Your task to perform on an android device: Search for "amazon basics triple a" on newegg.com, select the first entry, add it to the cart, then select checkout. Image 0: 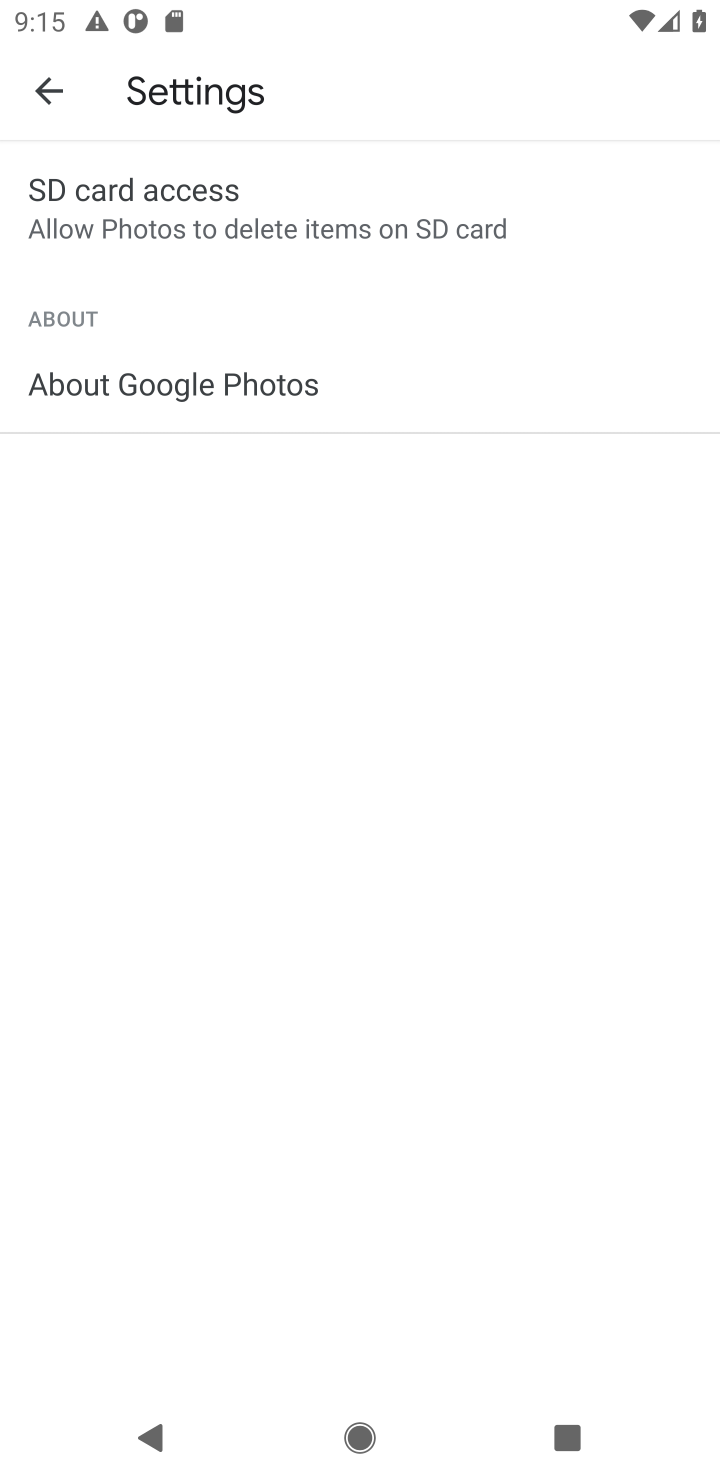
Step 0: press home button
Your task to perform on an android device: Search for "amazon basics triple a" on newegg.com, select the first entry, add it to the cart, then select checkout. Image 1: 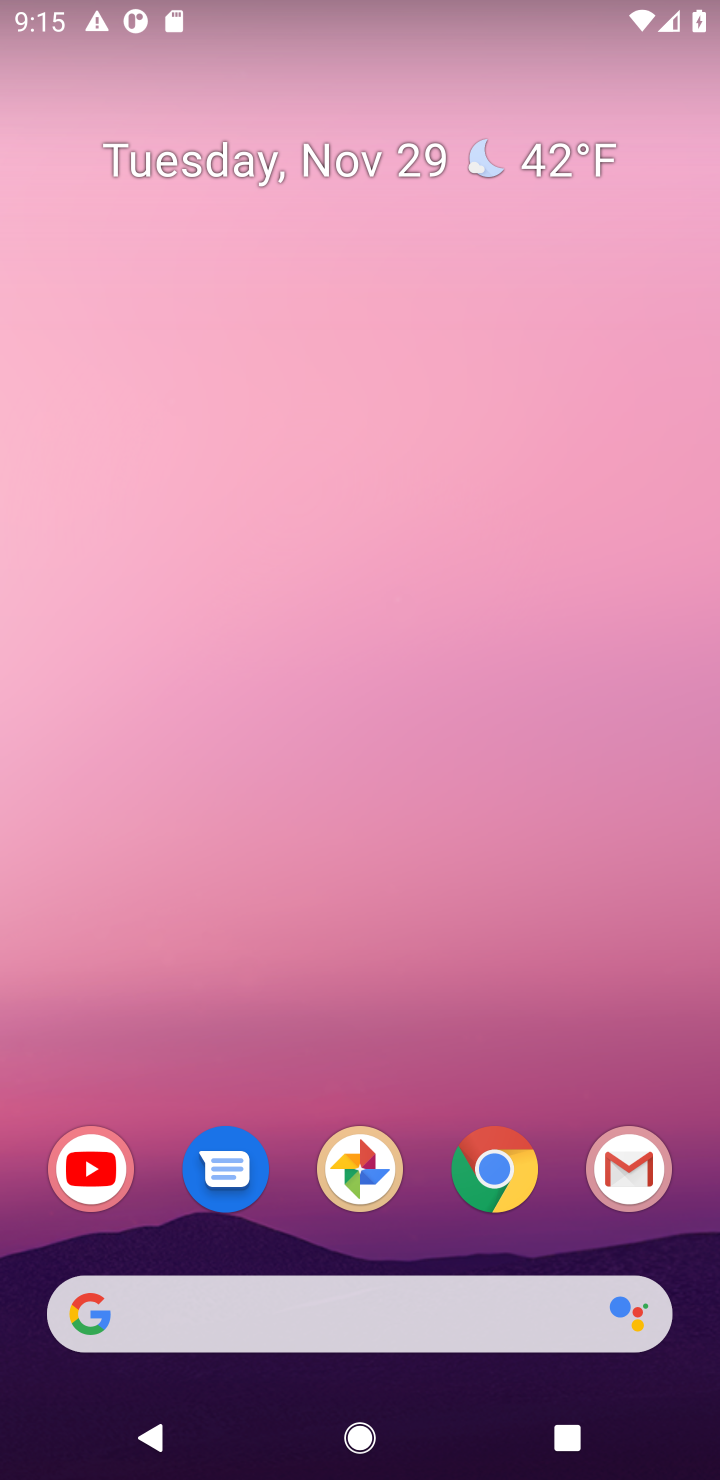
Step 1: click (467, 1339)
Your task to perform on an android device: Search for "amazon basics triple a" on newegg.com, select the first entry, add it to the cart, then select checkout. Image 2: 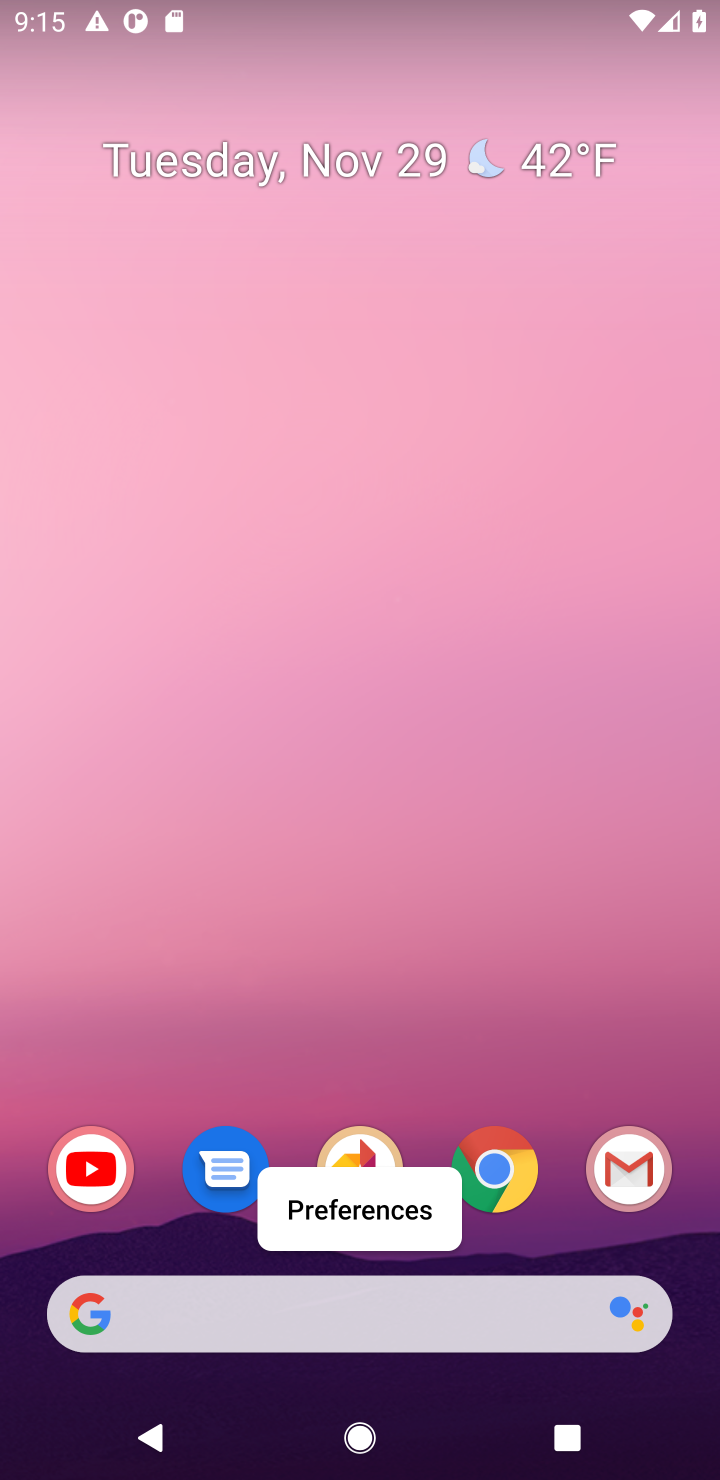
Step 2: type "amazon"
Your task to perform on an android device: Search for "amazon basics triple a" on newegg.com, select the first entry, add it to the cart, then select checkout. Image 3: 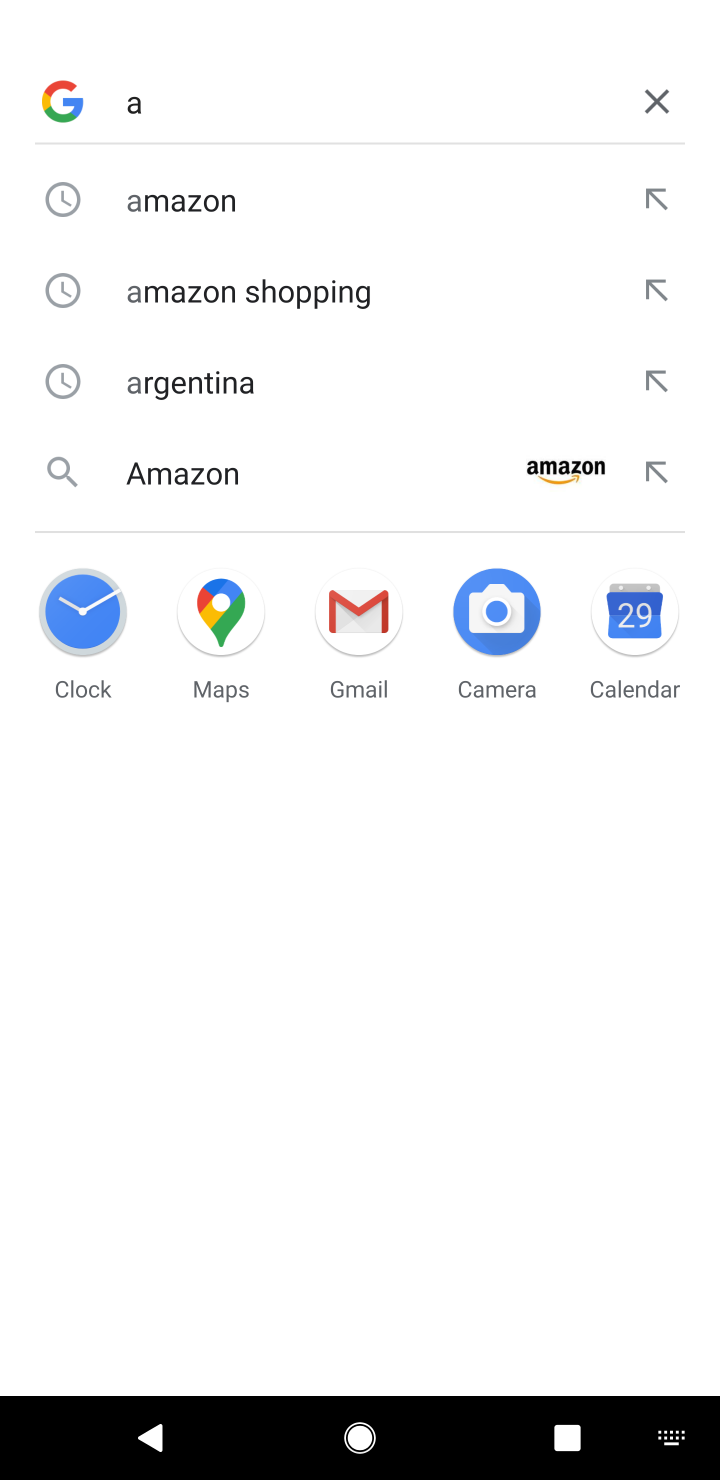
Step 3: click (664, 112)
Your task to perform on an android device: Search for "amazon basics triple a" on newegg.com, select the first entry, add it to the cart, then select checkout. Image 4: 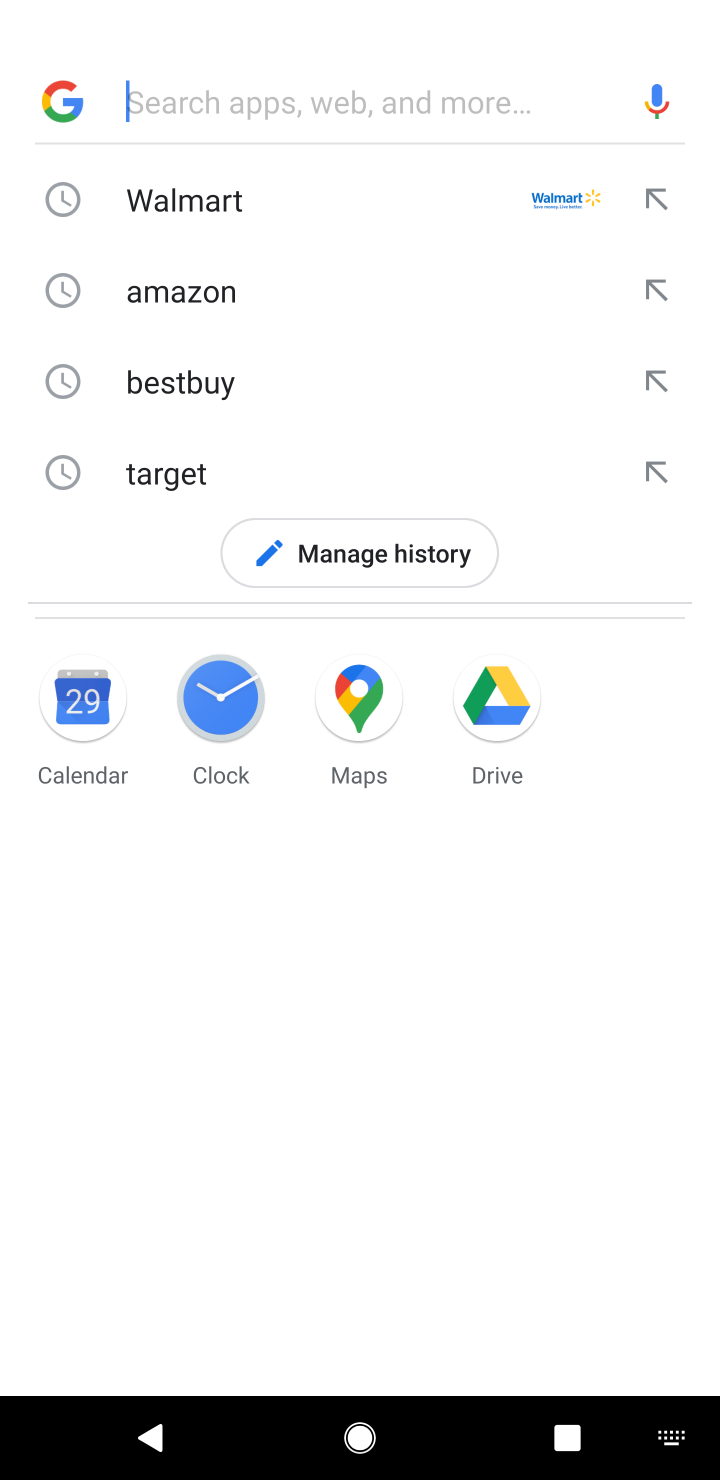
Step 4: type "newegg"
Your task to perform on an android device: Search for "amazon basics triple a" on newegg.com, select the first entry, add it to the cart, then select checkout. Image 5: 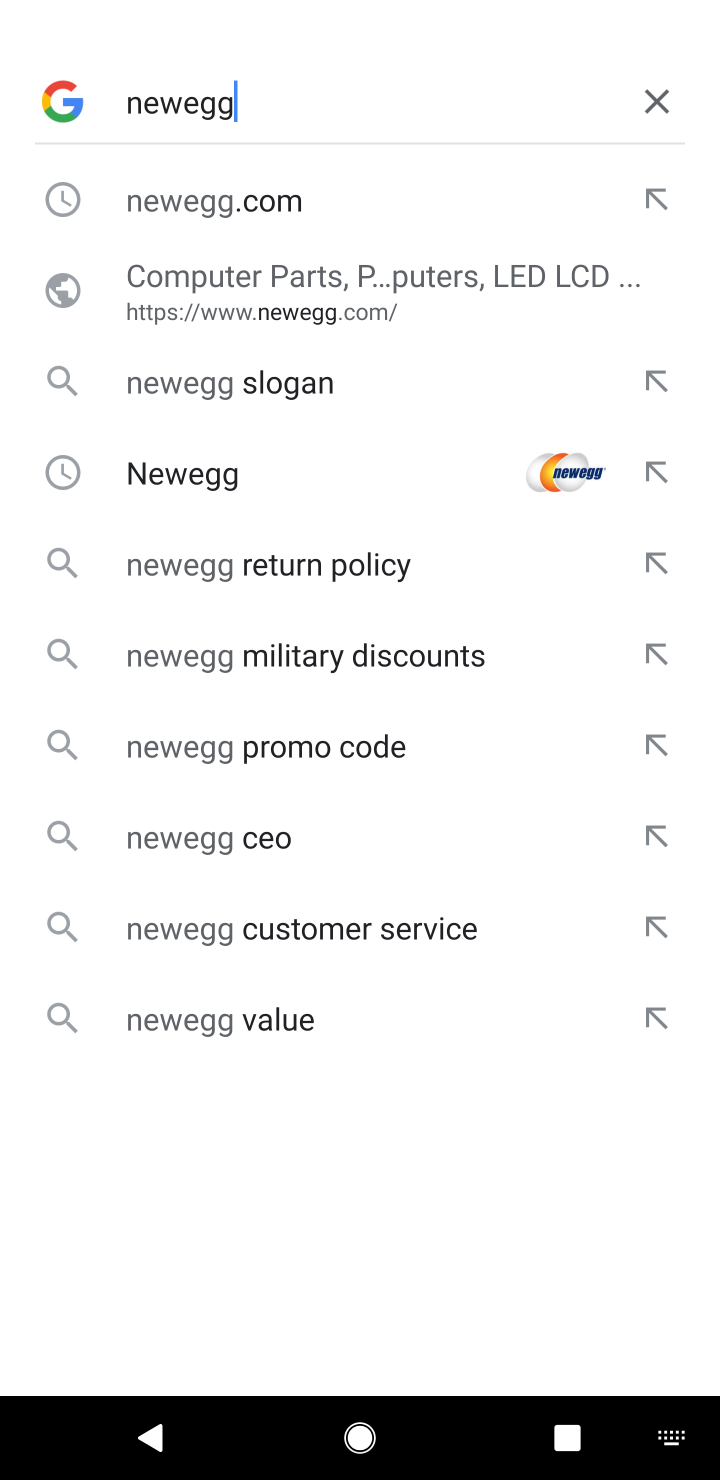
Step 5: click (248, 195)
Your task to perform on an android device: Search for "amazon basics triple a" on newegg.com, select the first entry, add it to the cart, then select checkout. Image 6: 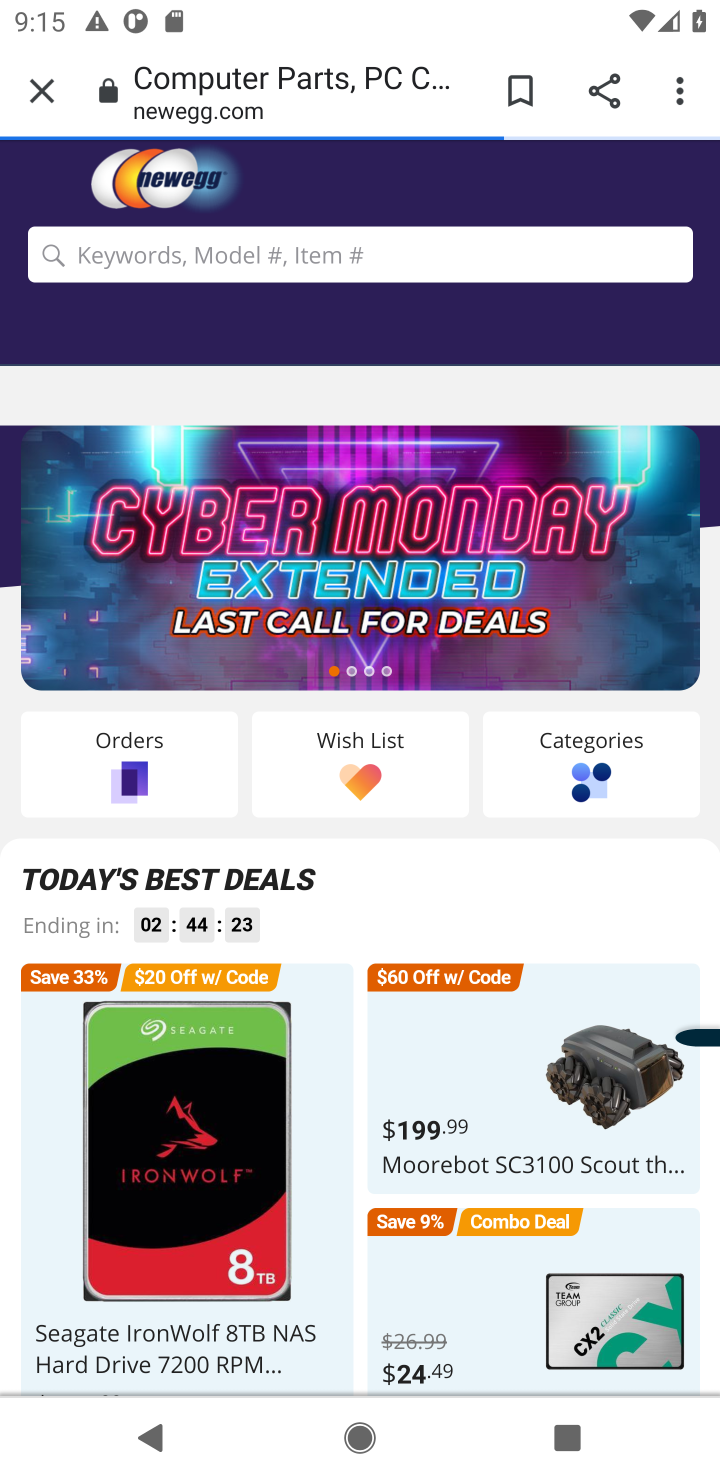
Step 6: click (204, 268)
Your task to perform on an android device: Search for "amazon basics triple a" on newegg.com, select the first entry, add it to the cart, then select checkout. Image 7: 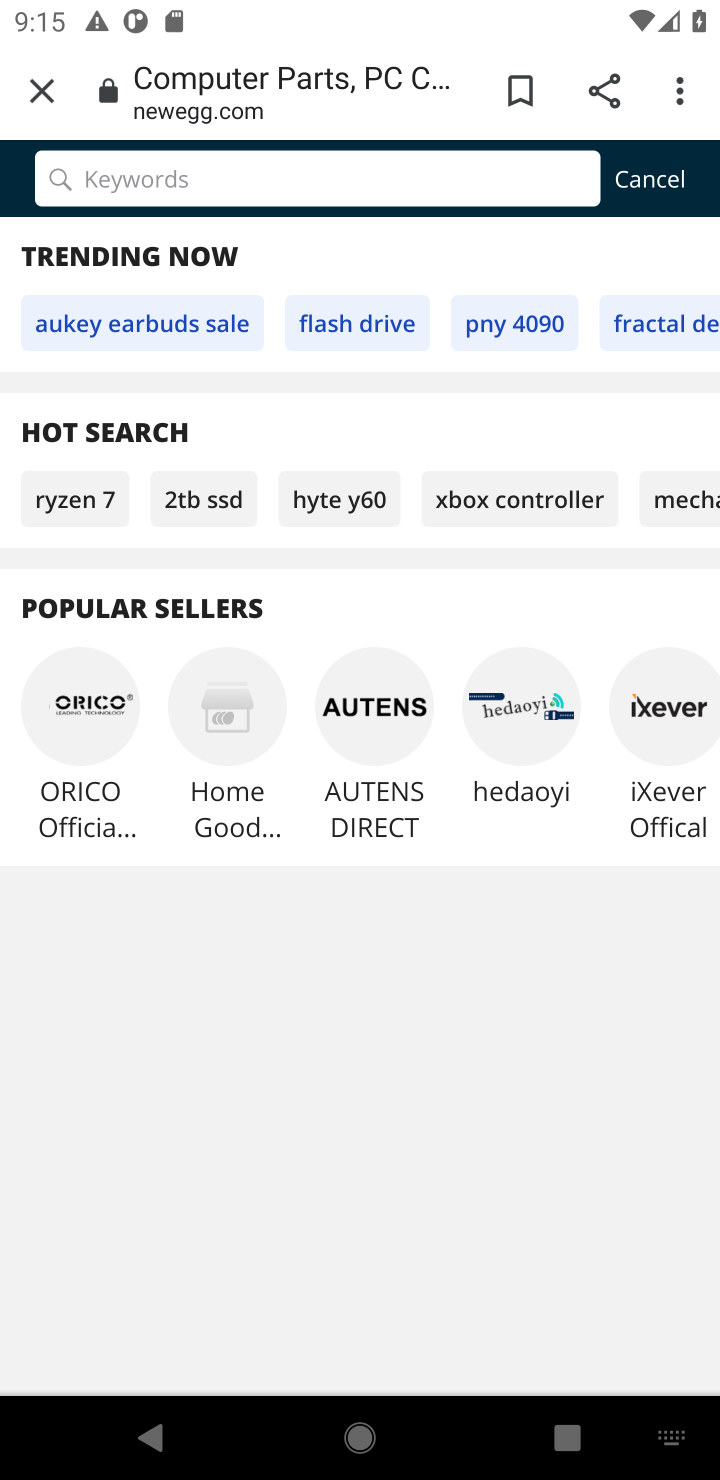
Step 7: type "amazon basic"
Your task to perform on an android device: Search for "amazon basics triple a" on newegg.com, select the first entry, add it to the cart, then select checkout. Image 8: 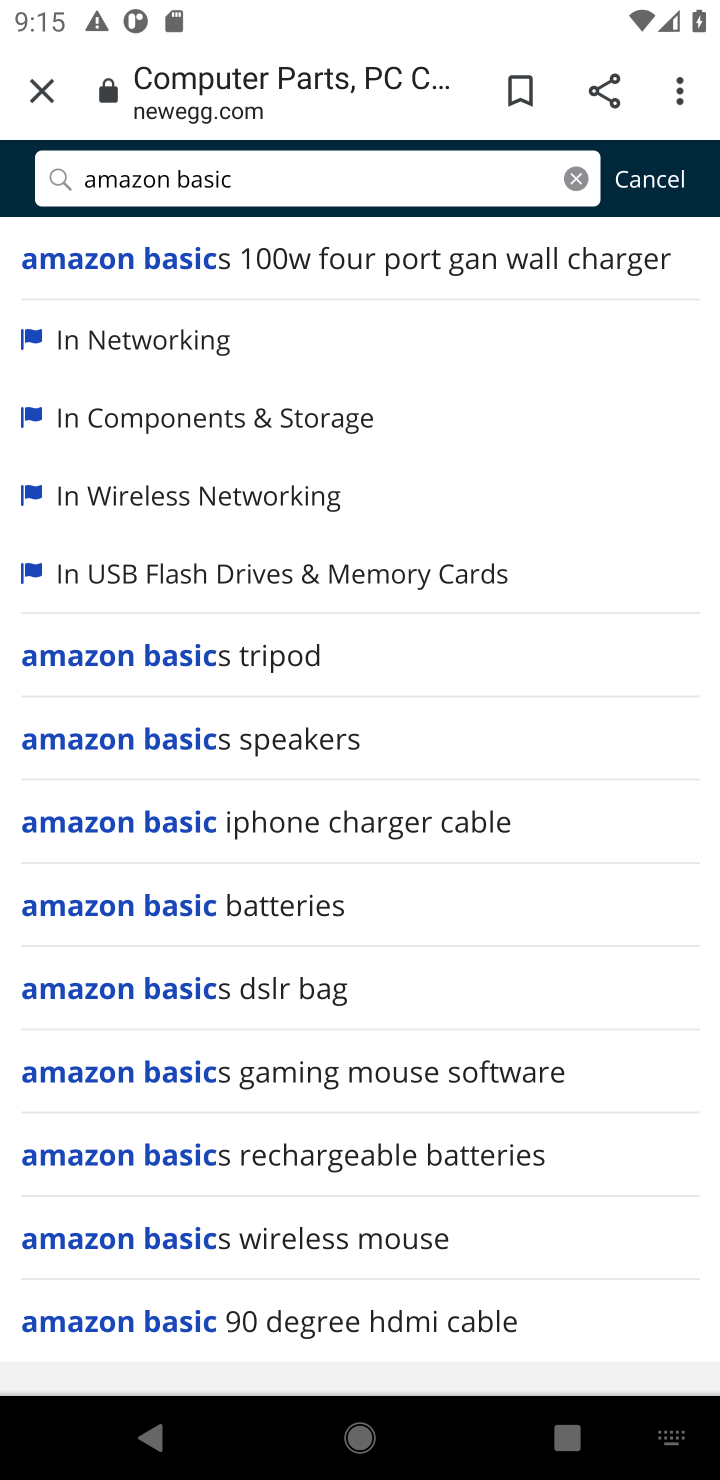
Step 8: click (324, 900)
Your task to perform on an android device: Search for "amazon basics triple a" on newegg.com, select the first entry, add it to the cart, then select checkout. Image 9: 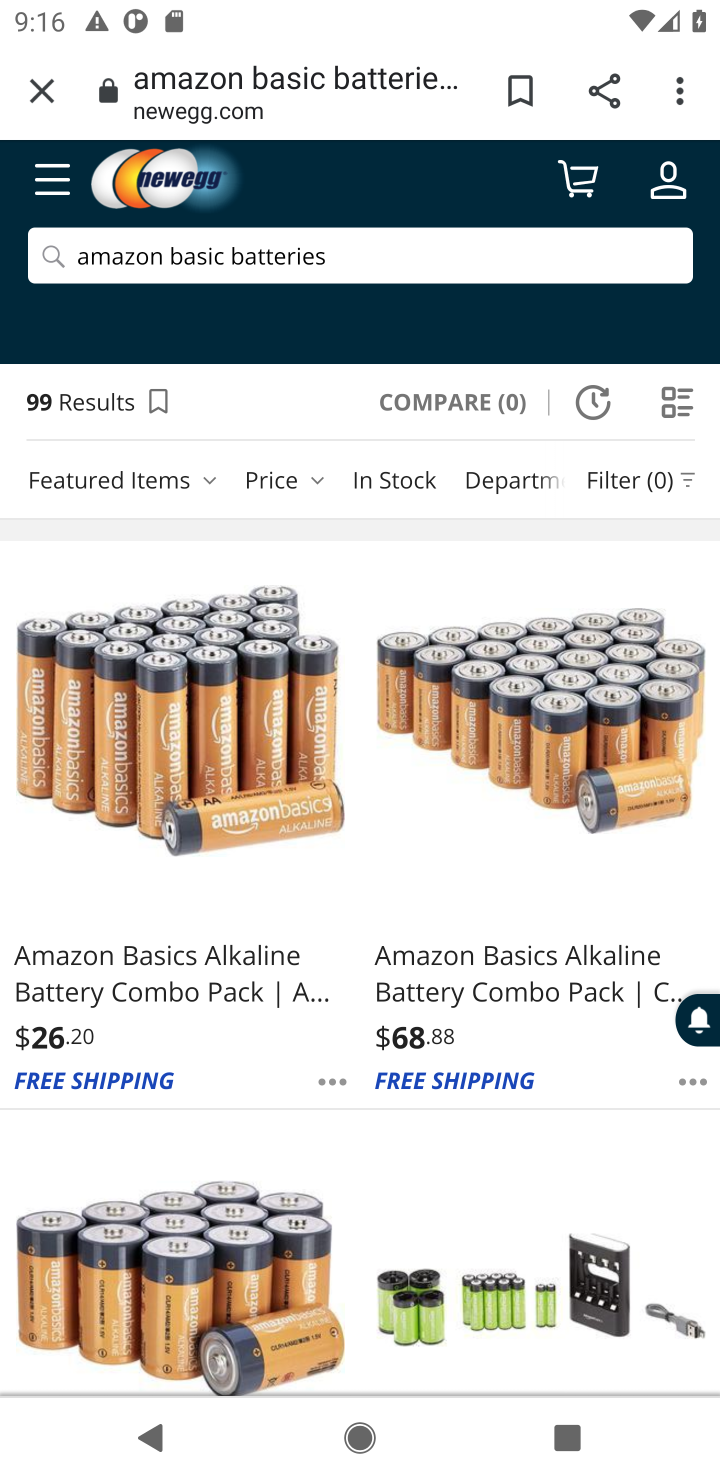
Step 9: click (243, 831)
Your task to perform on an android device: Search for "amazon basics triple a" on newegg.com, select the first entry, add it to the cart, then select checkout. Image 10: 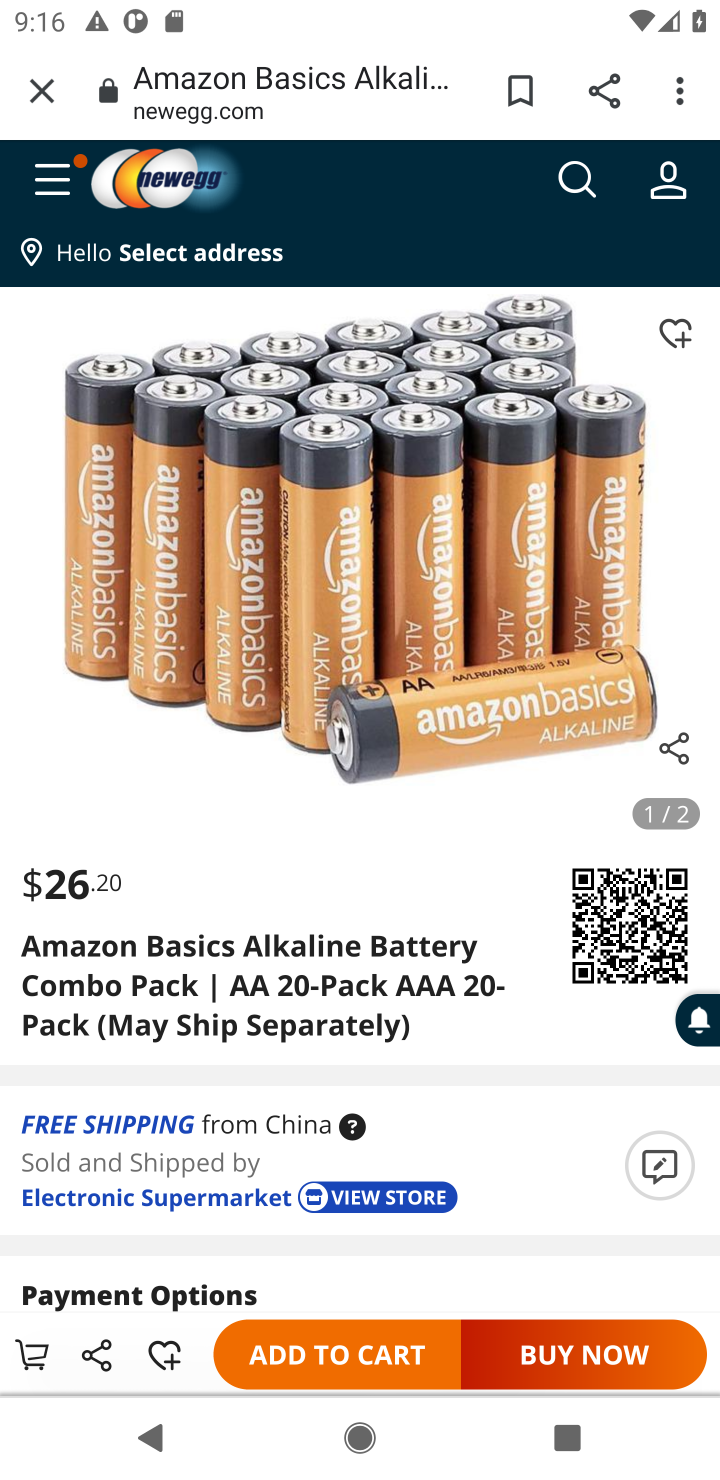
Step 10: click (329, 1349)
Your task to perform on an android device: Search for "amazon basics triple a" on newegg.com, select the first entry, add it to the cart, then select checkout. Image 11: 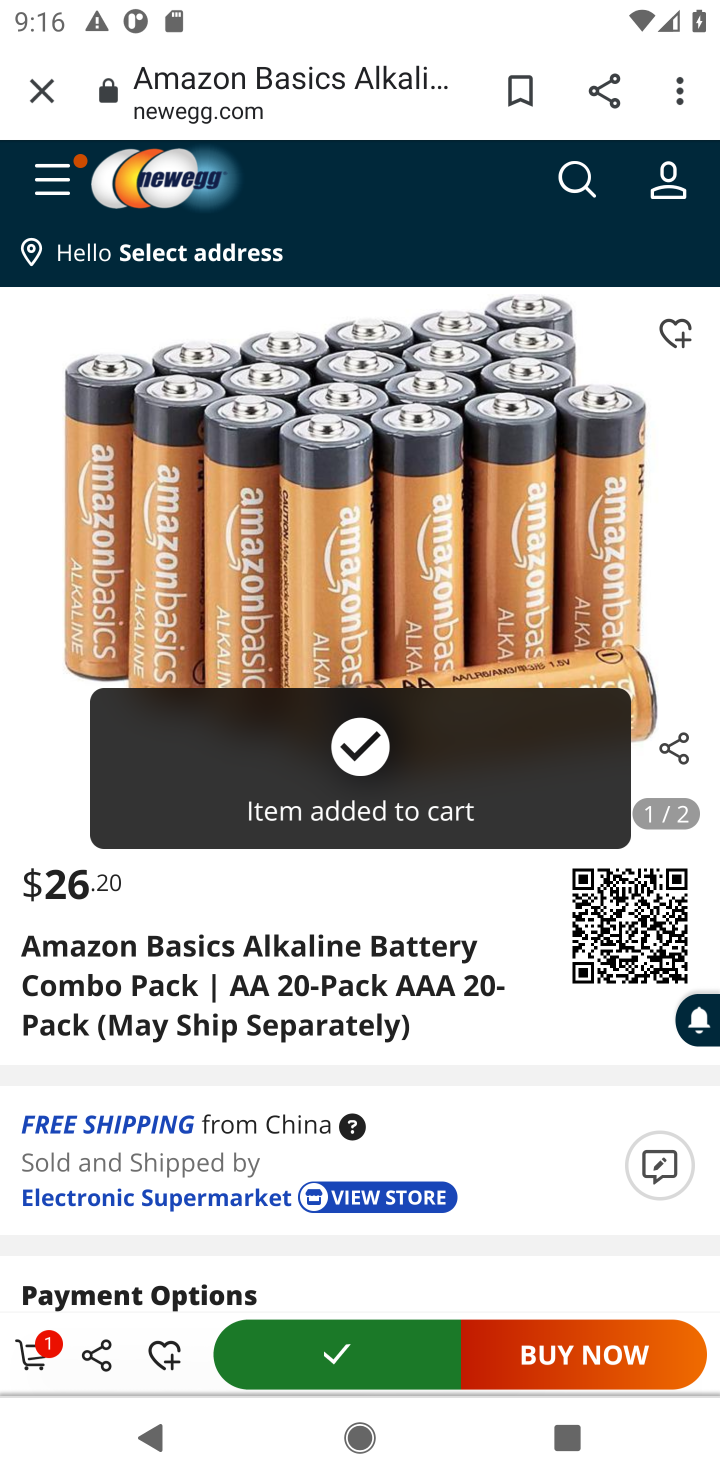
Step 11: task complete